Your task to perform on an android device: Go to Google Image 0: 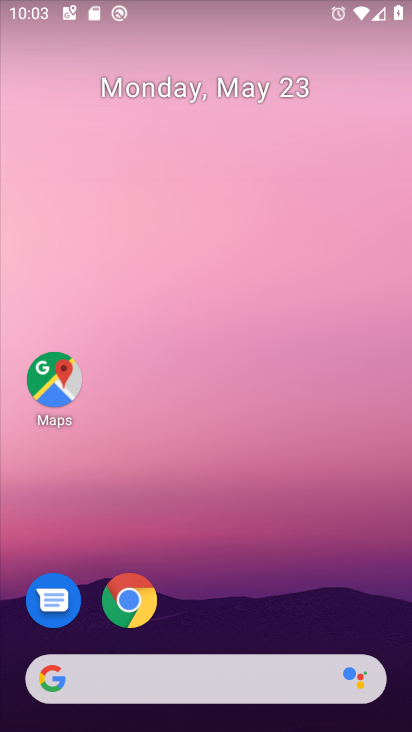
Step 0: drag from (220, 731) to (202, 0)
Your task to perform on an android device: Go to Google Image 1: 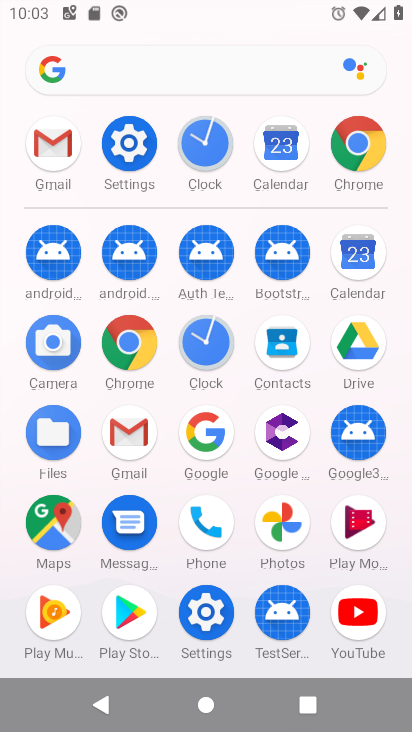
Step 1: click (212, 435)
Your task to perform on an android device: Go to Google Image 2: 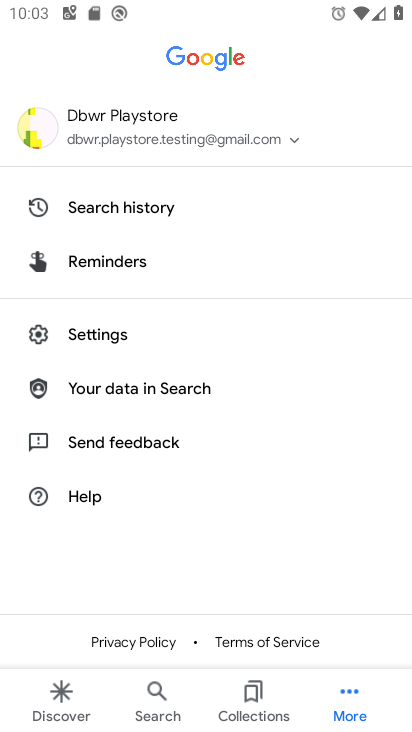
Step 2: task complete